Your task to perform on an android device: turn off translation in the chrome app Image 0: 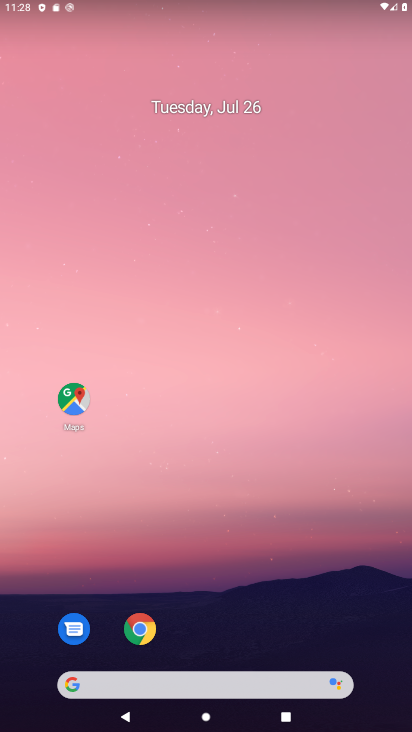
Step 0: drag from (242, 726) to (223, 142)
Your task to perform on an android device: turn off translation in the chrome app Image 1: 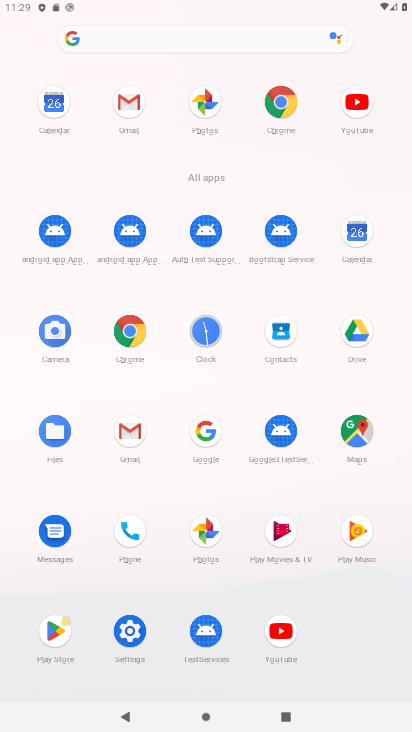
Step 1: click (129, 325)
Your task to perform on an android device: turn off translation in the chrome app Image 2: 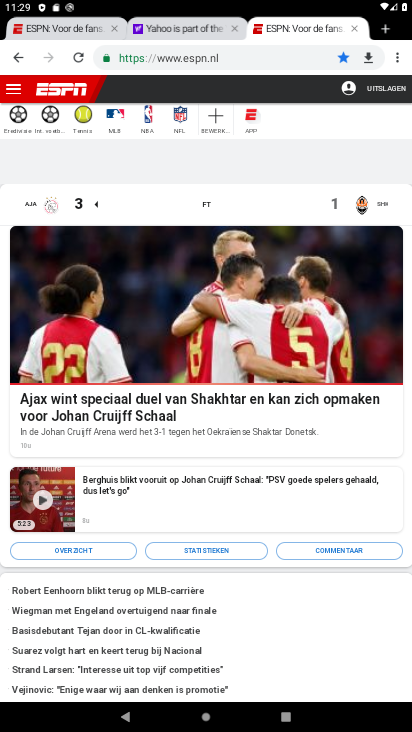
Step 2: click (398, 62)
Your task to perform on an android device: turn off translation in the chrome app Image 3: 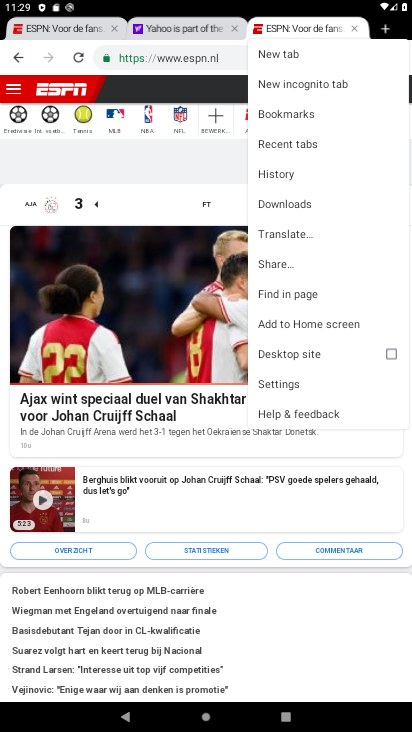
Step 3: click (280, 382)
Your task to perform on an android device: turn off translation in the chrome app Image 4: 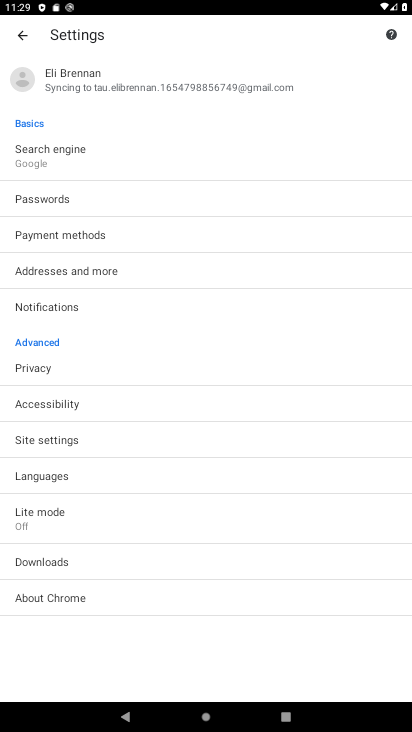
Step 4: click (47, 478)
Your task to perform on an android device: turn off translation in the chrome app Image 5: 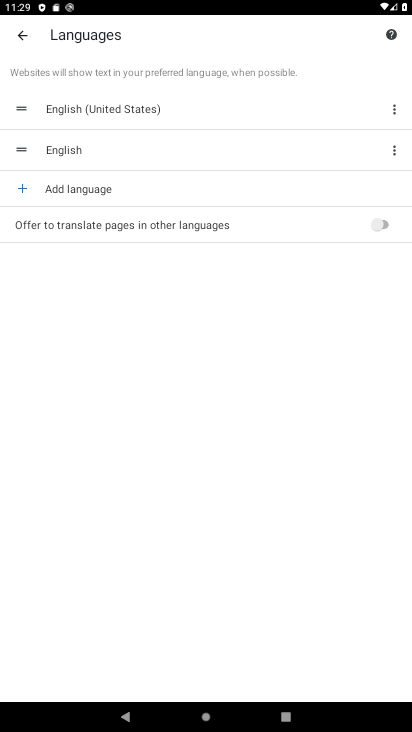
Step 5: task complete